Your task to perform on an android device: Open the calculator Image 0: 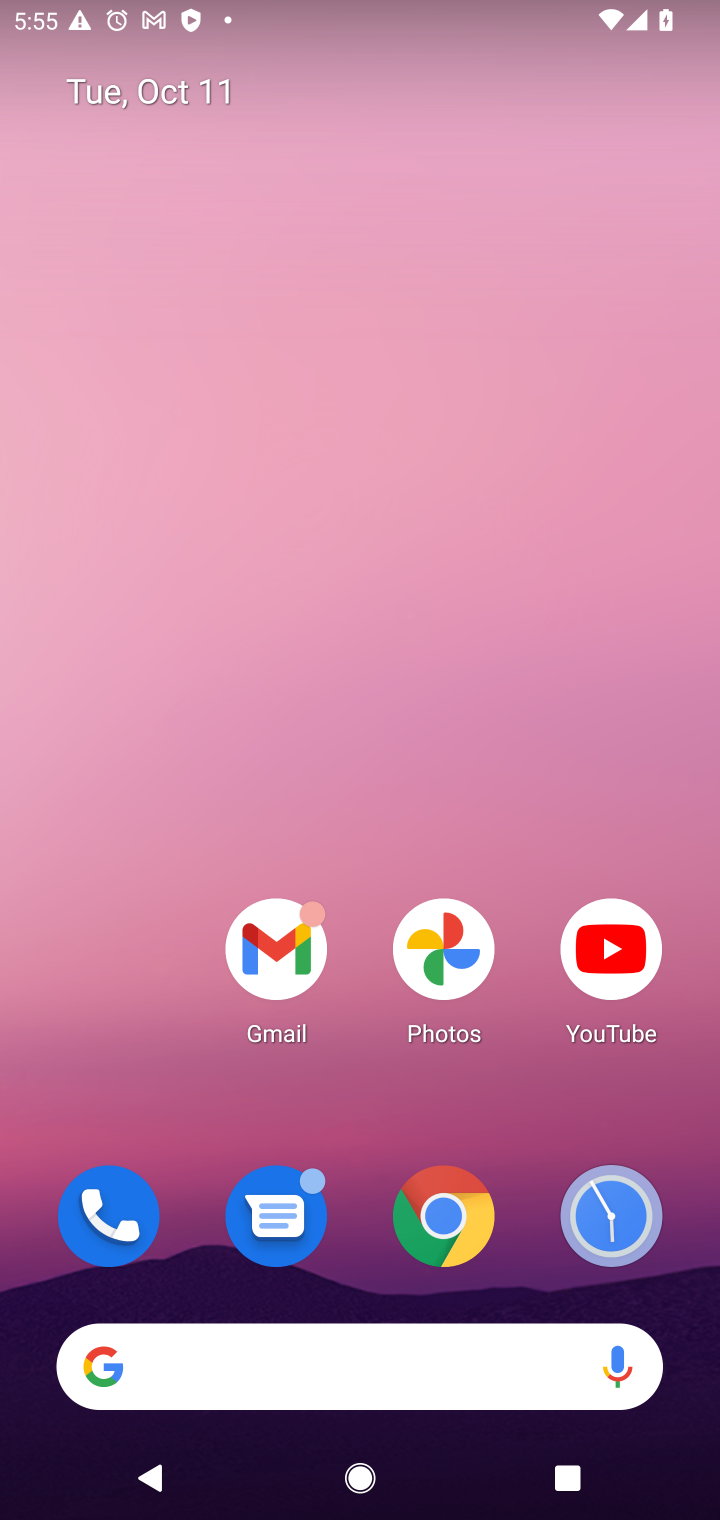
Step 0: drag from (382, 1410) to (266, 326)
Your task to perform on an android device: Open the calculator Image 1: 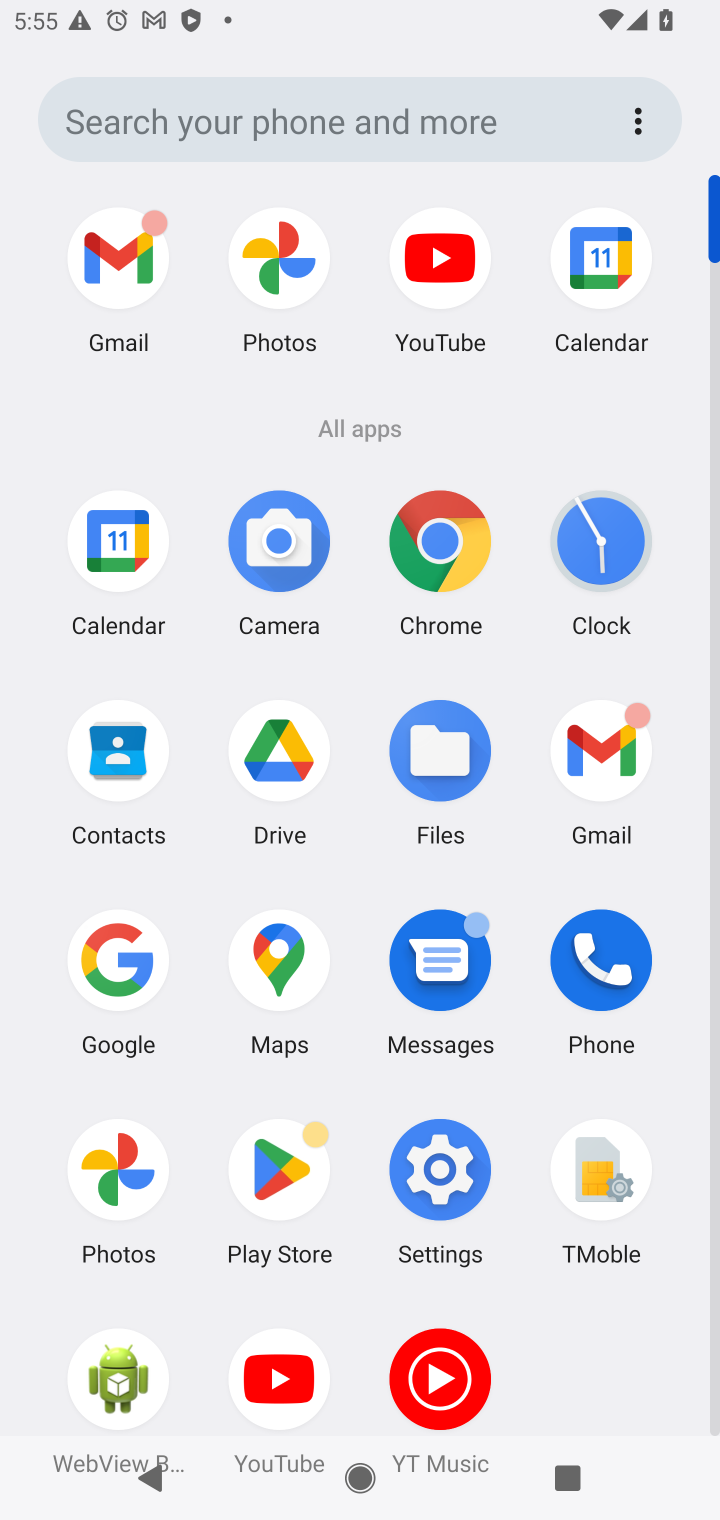
Step 1: task complete